Your task to perform on an android device: open a bookmark in the chrome app Image 0: 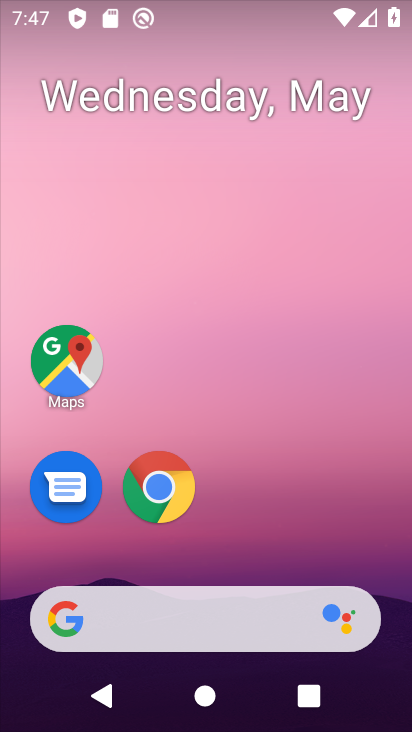
Step 0: click (168, 485)
Your task to perform on an android device: open a bookmark in the chrome app Image 1: 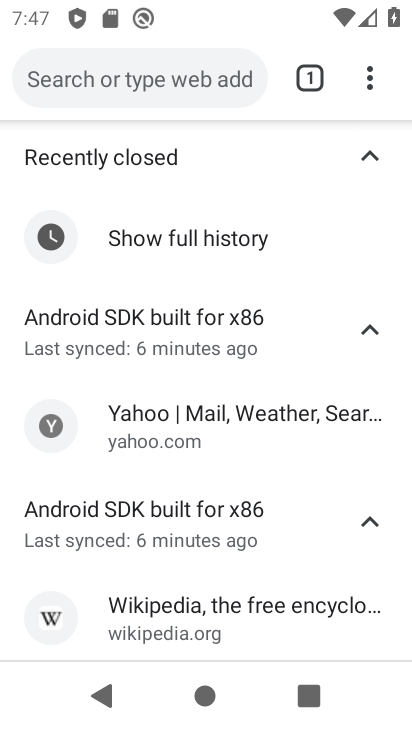
Step 1: click (367, 76)
Your task to perform on an android device: open a bookmark in the chrome app Image 2: 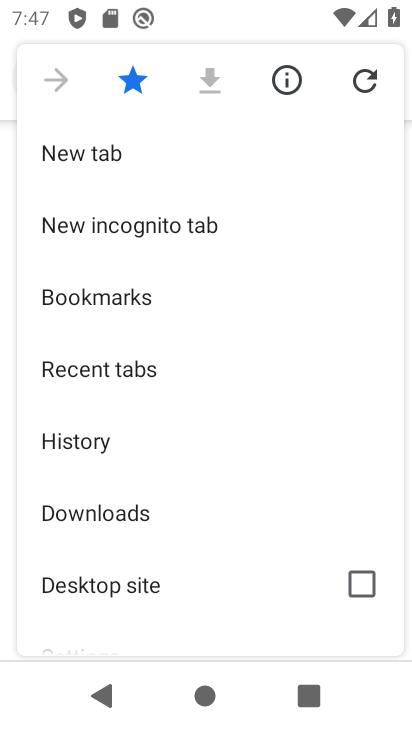
Step 2: click (164, 292)
Your task to perform on an android device: open a bookmark in the chrome app Image 3: 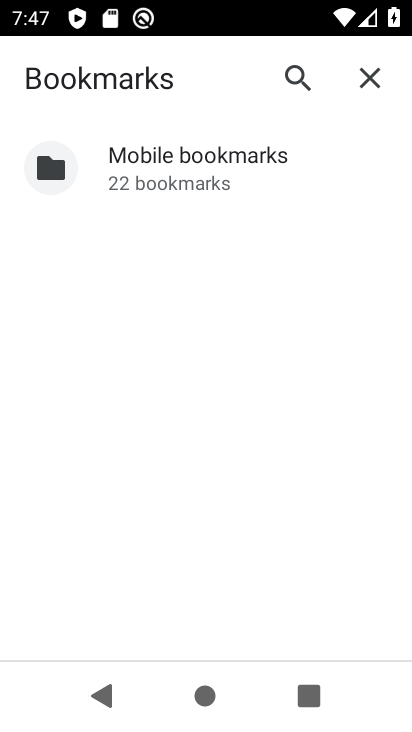
Step 3: click (177, 165)
Your task to perform on an android device: open a bookmark in the chrome app Image 4: 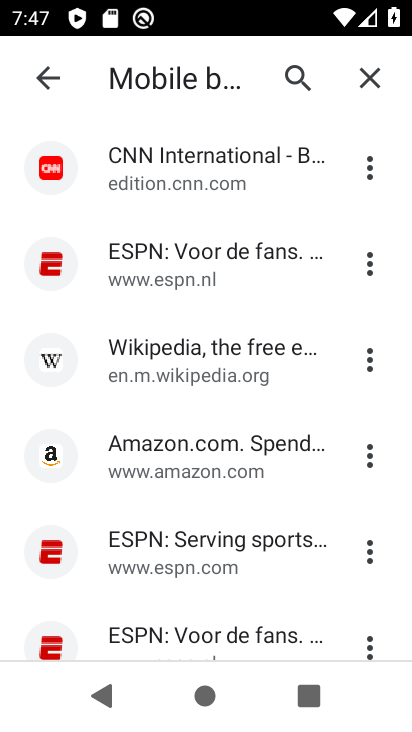
Step 4: click (171, 361)
Your task to perform on an android device: open a bookmark in the chrome app Image 5: 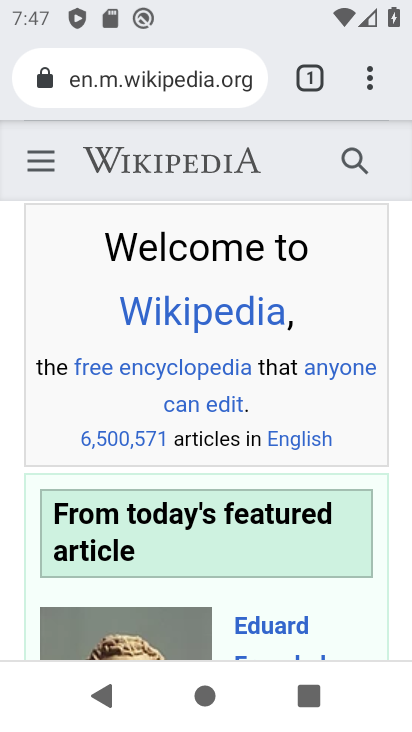
Step 5: task complete